Your task to perform on an android device: Open Amazon Image 0: 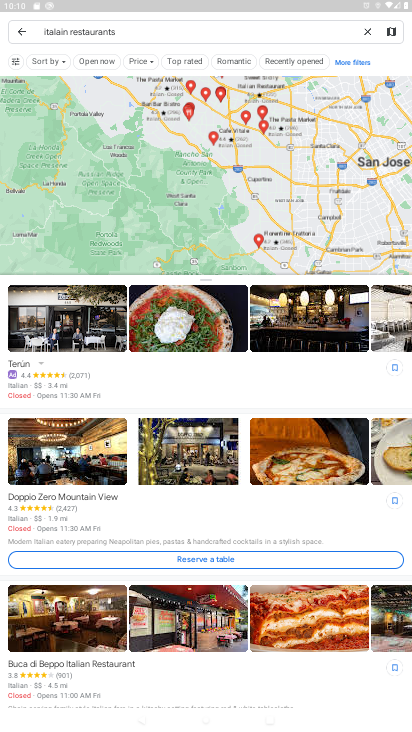
Step 0: press home button
Your task to perform on an android device: Open Amazon Image 1: 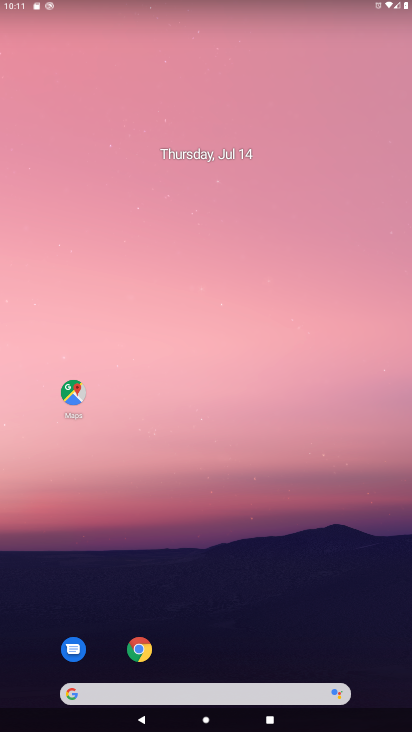
Step 1: click (154, 647)
Your task to perform on an android device: Open Amazon Image 2: 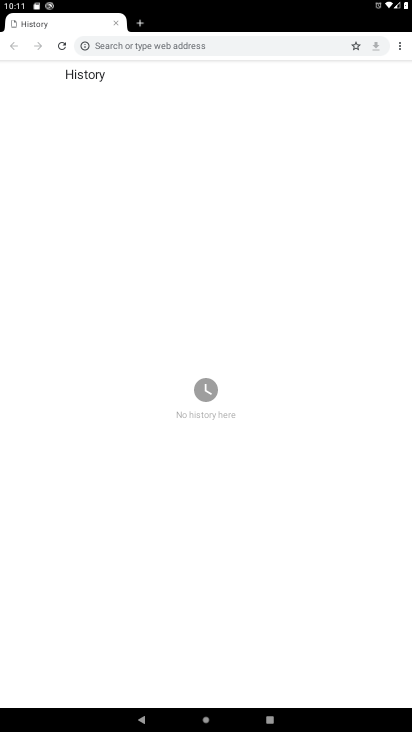
Step 2: click (405, 42)
Your task to perform on an android device: Open Amazon Image 3: 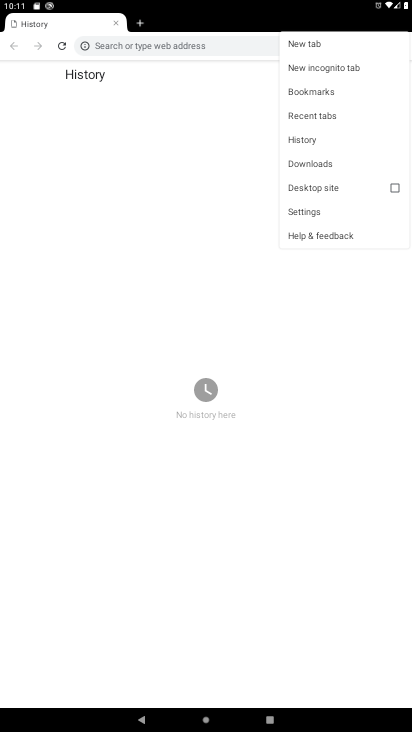
Step 3: click (337, 43)
Your task to perform on an android device: Open Amazon Image 4: 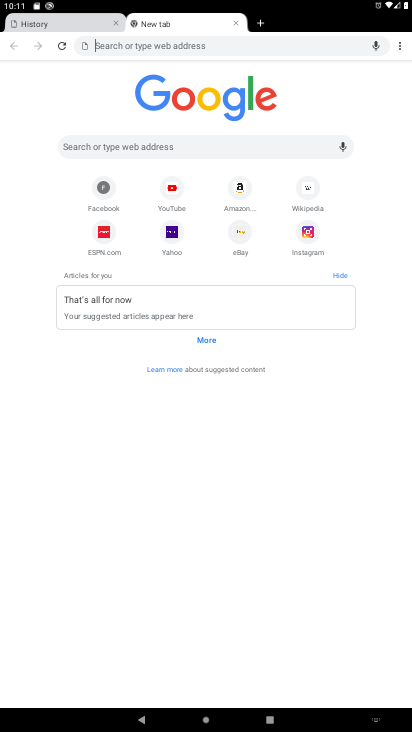
Step 4: click (235, 189)
Your task to perform on an android device: Open Amazon Image 5: 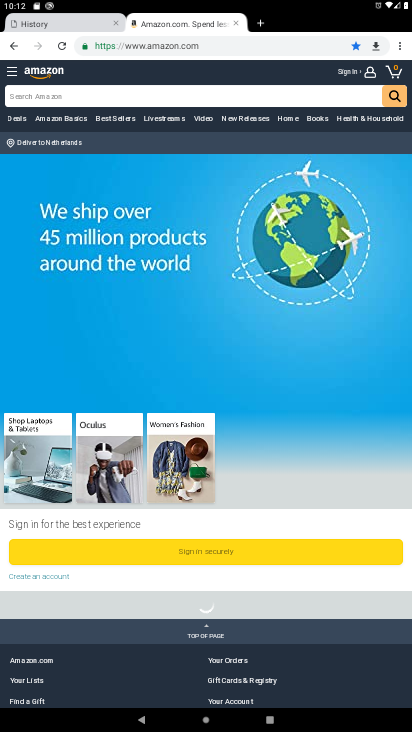
Step 5: task complete